Your task to perform on an android device: Open network settings Image 0: 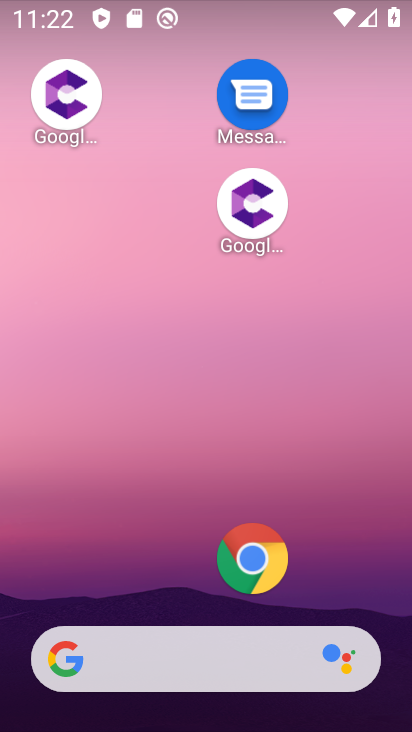
Step 0: drag from (146, 595) to (261, 119)
Your task to perform on an android device: Open network settings Image 1: 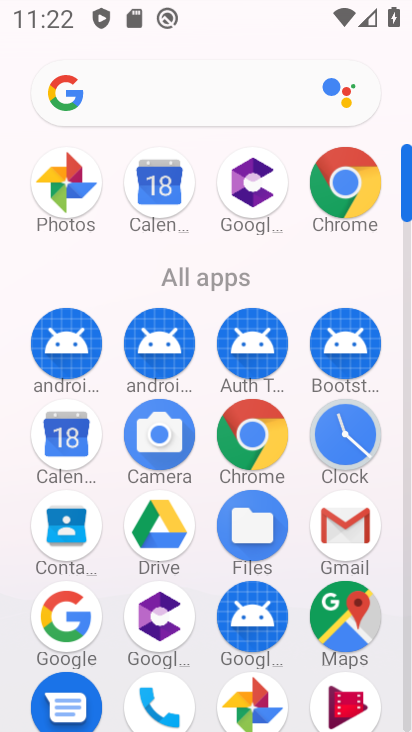
Step 1: drag from (208, 616) to (238, 233)
Your task to perform on an android device: Open network settings Image 2: 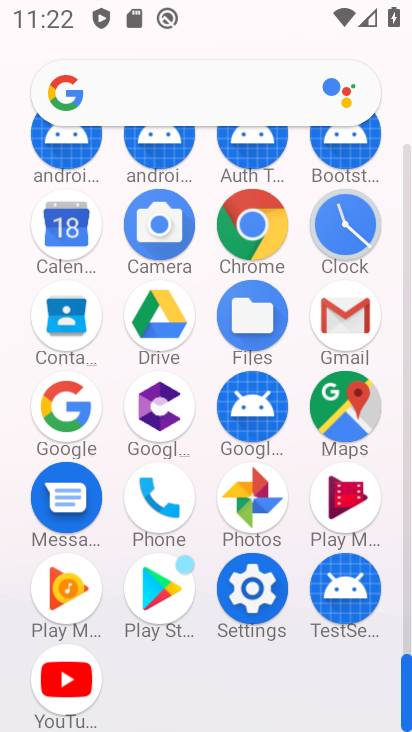
Step 2: click (249, 583)
Your task to perform on an android device: Open network settings Image 3: 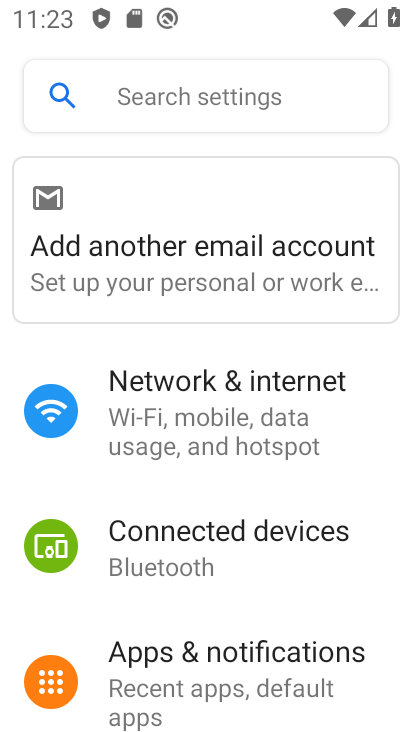
Step 3: click (233, 391)
Your task to perform on an android device: Open network settings Image 4: 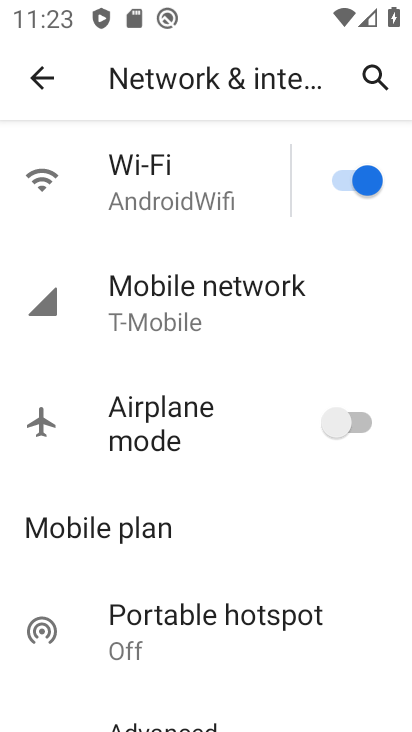
Step 4: click (190, 311)
Your task to perform on an android device: Open network settings Image 5: 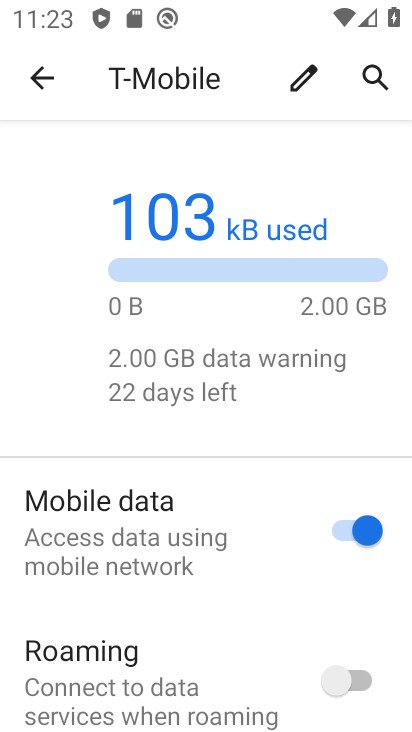
Step 5: task complete